Your task to perform on an android device: toggle javascript in the chrome app Image 0: 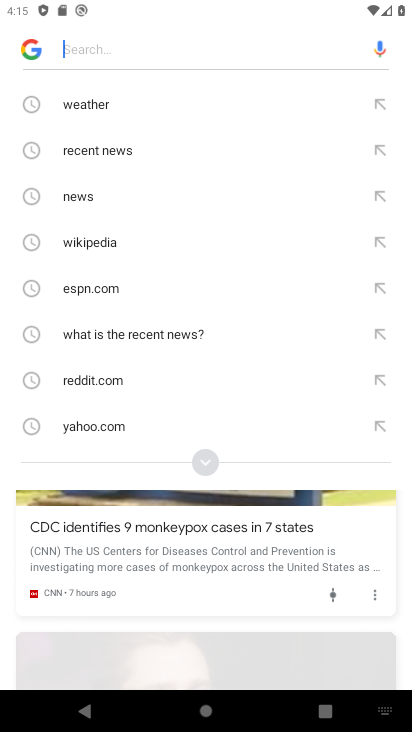
Step 0: press home button
Your task to perform on an android device: toggle javascript in the chrome app Image 1: 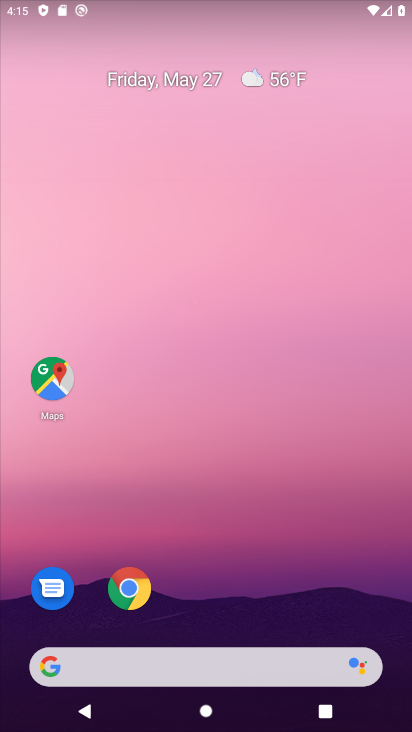
Step 1: click (145, 585)
Your task to perform on an android device: toggle javascript in the chrome app Image 2: 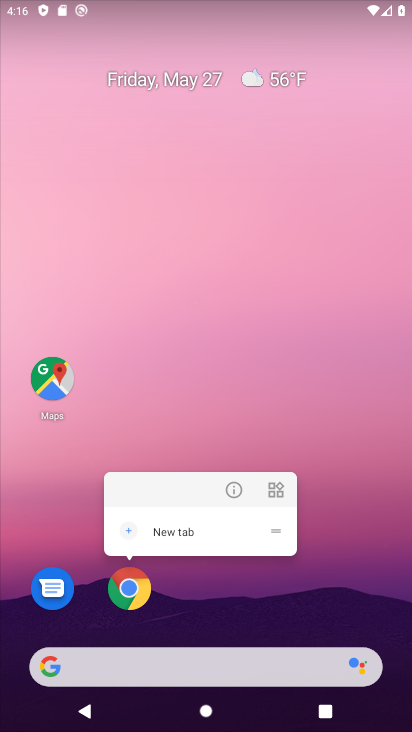
Step 2: click (129, 586)
Your task to perform on an android device: toggle javascript in the chrome app Image 3: 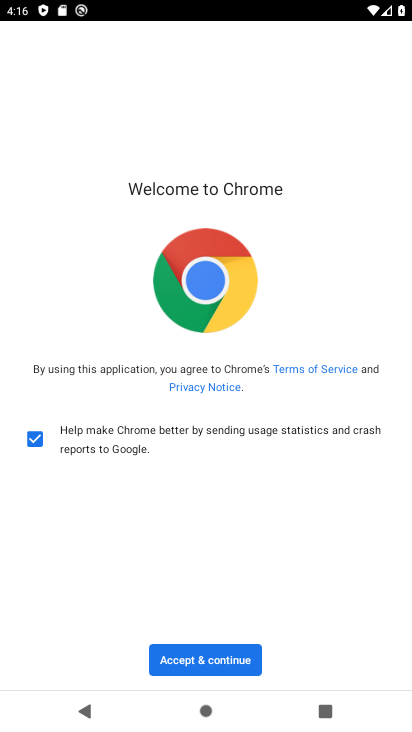
Step 3: click (187, 646)
Your task to perform on an android device: toggle javascript in the chrome app Image 4: 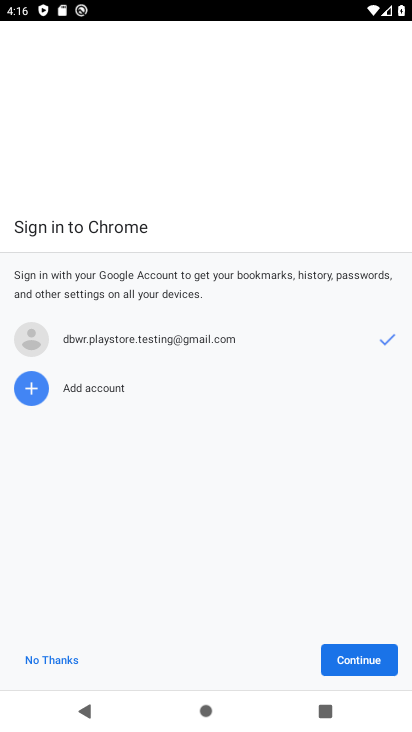
Step 4: click (358, 651)
Your task to perform on an android device: toggle javascript in the chrome app Image 5: 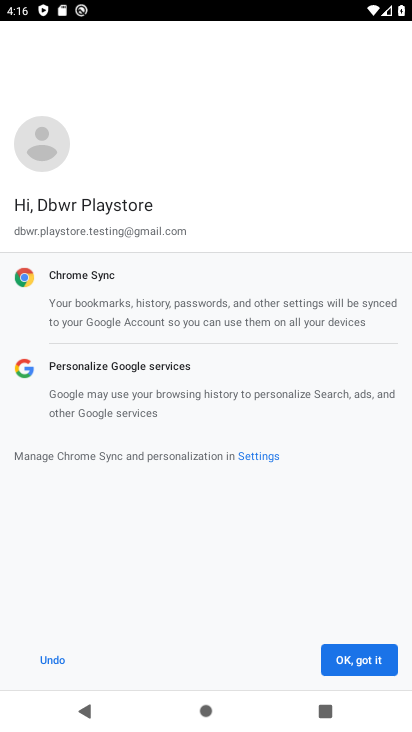
Step 5: click (346, 662)
Your task to perform on an android device: toggle javascript in the chrome app Image 6: 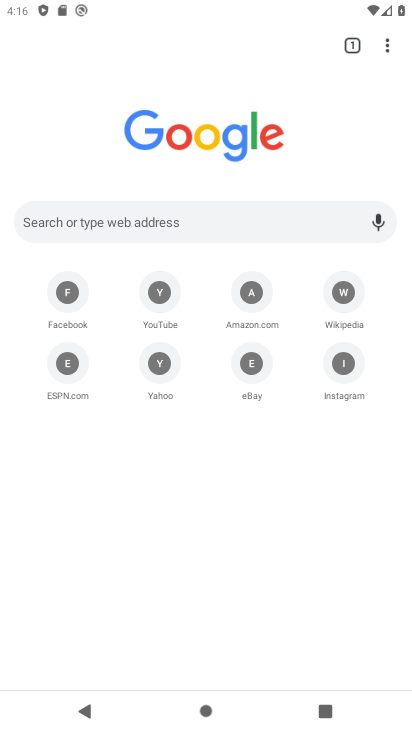
Step 6: drag from (385, 44) to (224, 377)
Your task to perform on an android device: toggle javascript in the chrome app Image 7: 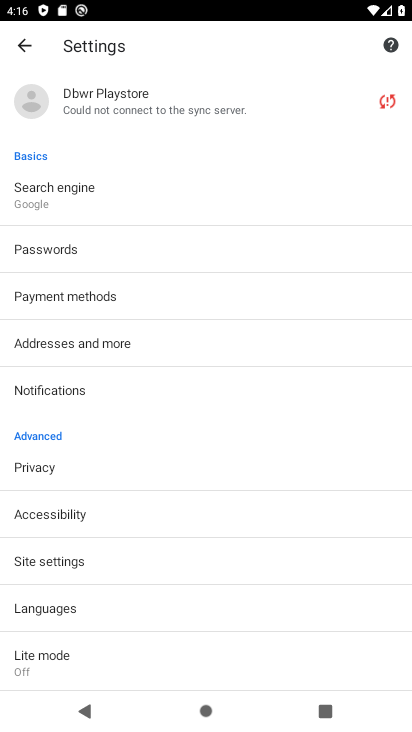
Step 7: click (87, 563)
Your task to perform on an android device: toggle javascript in the chrome app Image 8: 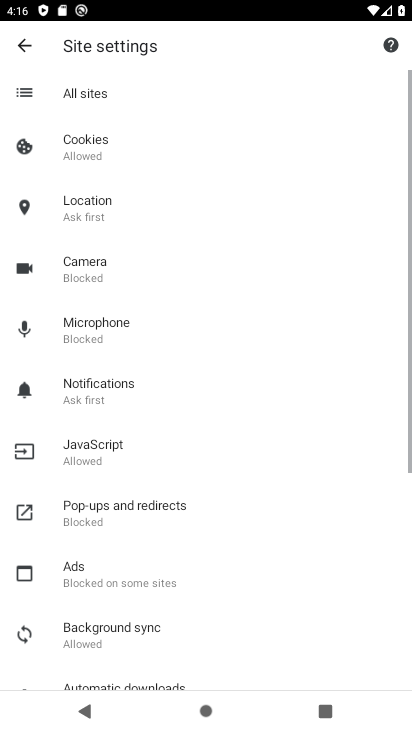
Step 8: drag from (99, 616) to (177, 219)
Your task to perform on an android device: toggle javascript in the chrome app Image 9: 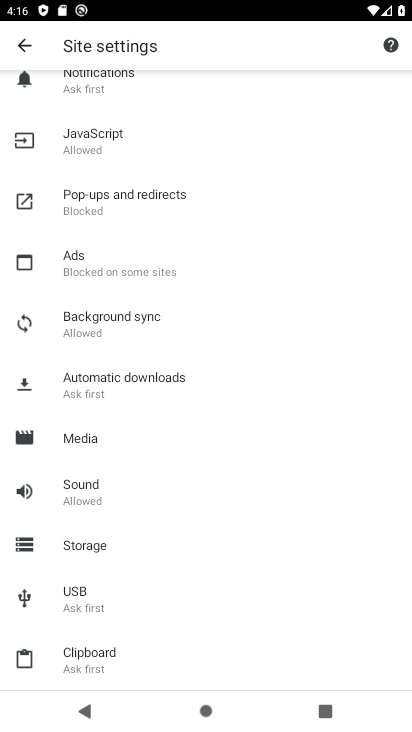
Step 9: click (101, 140)
Your task to perform on an android device: toggle javascript in the chrome app Image 10: 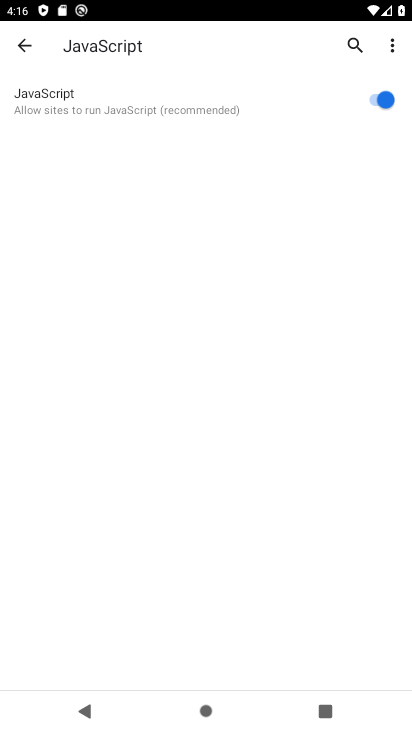
Step 10: click (382, 95)
Your task to perform on an android device: toggle javascript in the chrome app Image 11: 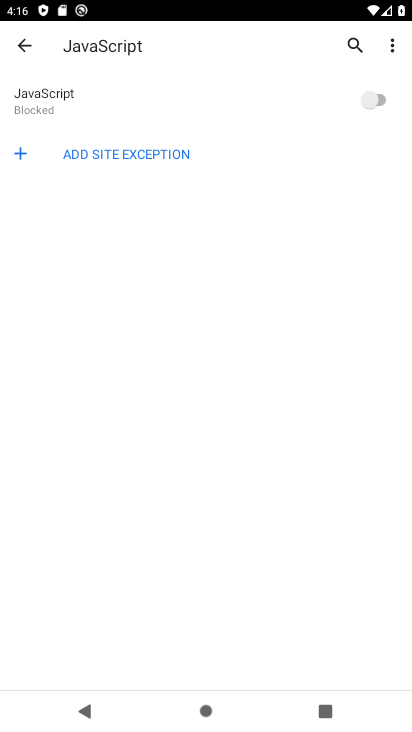
Step 11: task complete